Your task to perform on an android device: turn off translation in the chrome app Image 0: 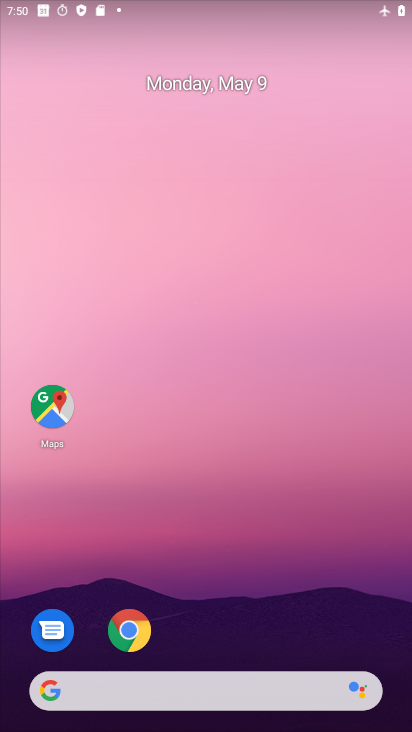
Step 0: press home button
Your task to perform on an android device: turn off translation in the chrome app Image 1: 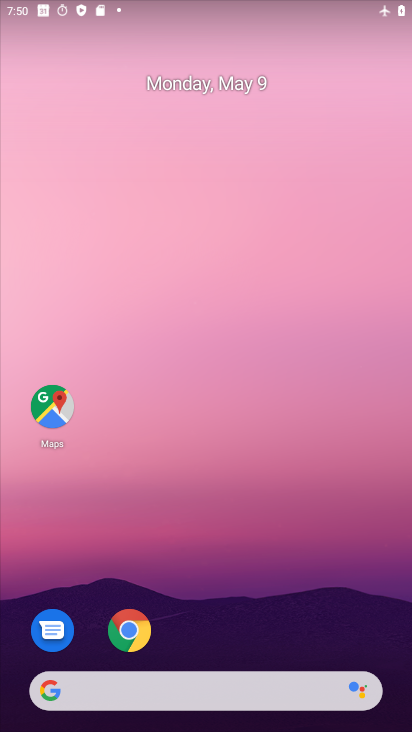
Step 1: drag from (352, 637) to (316, 155)
Your task to perform on an android device: turn off translation in the chrome app Image 2: 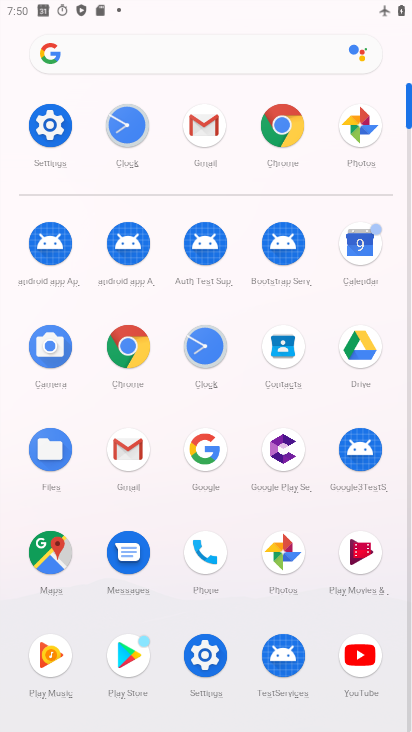
Step 2: click (107, 363)
Your task to perform on an android device: turn off translation in the chrome app Image 3: 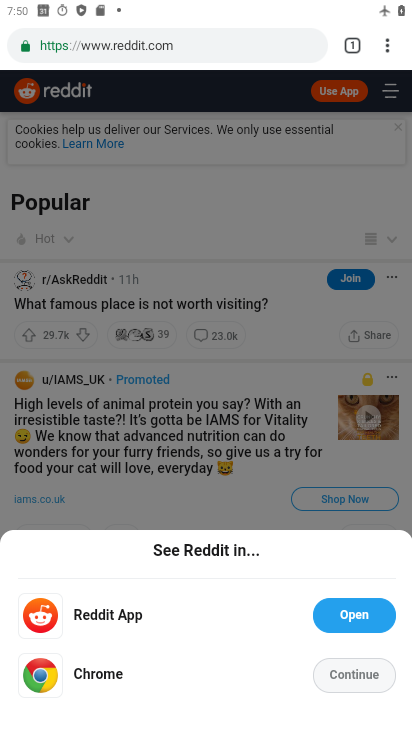
Step 3: drag from (385, 61) to (254, 558)
Your task to perform on an android device: turn off translation in the chrome app Image 4: 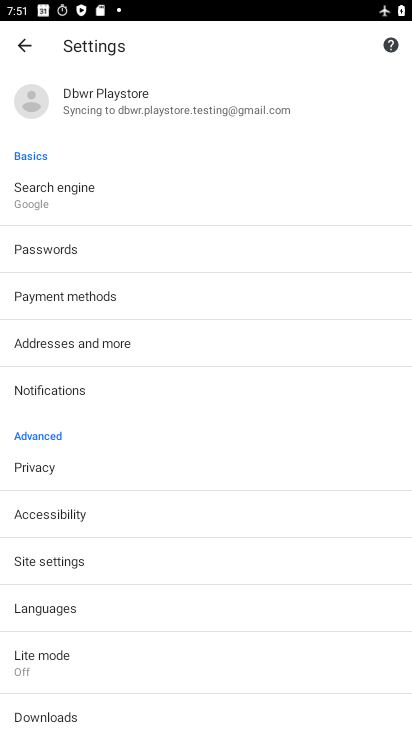
Step 4: click (84, 605)
Your task to perform on an android device: turn off translation in the chrome app Image 5: 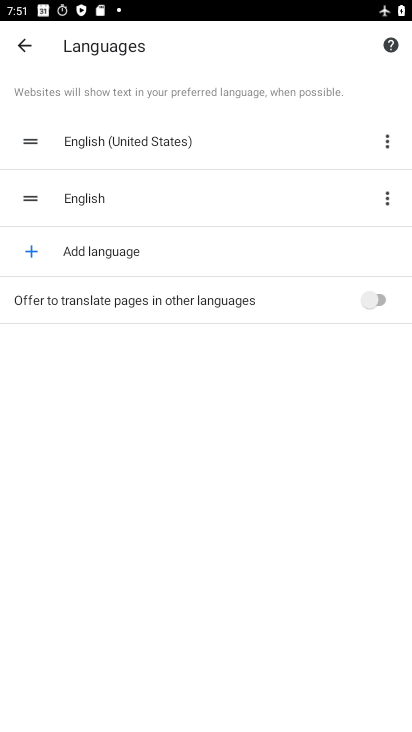
Step 5: task complete